Your task to perform on an android device: Open Yahoo.com Image 0: 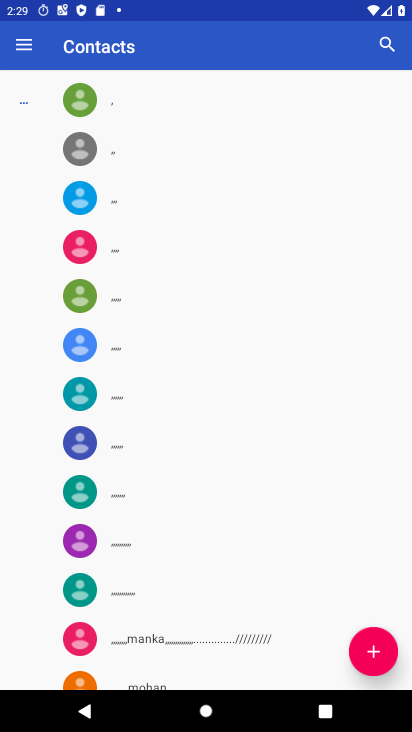
Step 0: press home button
Your task to perform on an android device: Open Yahoo.com Image 1: 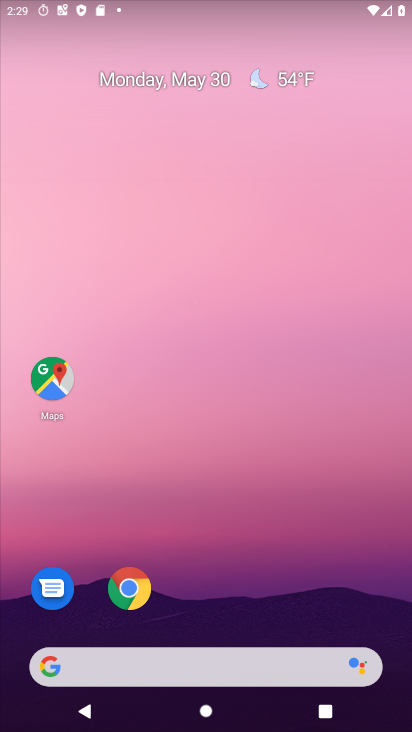
Step 1: drag from (191, 593) to (192, 109)
Your task to perform on an android device: Open Yahoo.com Image 2: 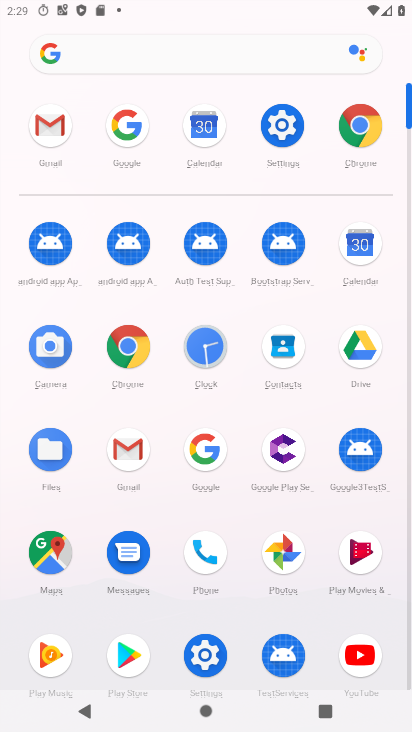
Step 2: click (131, 343)
Your task to perform on an android device: Open Yahoo.com Image 3: 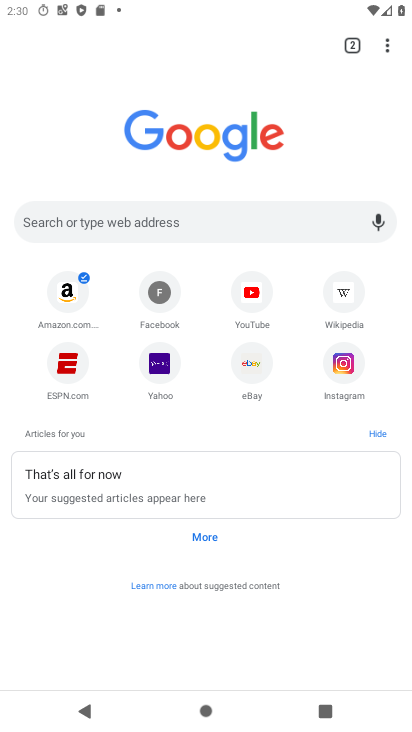
Step 3: click (159, 361)
Your task to perform on an android device: Open Yahoo.com Image 4: 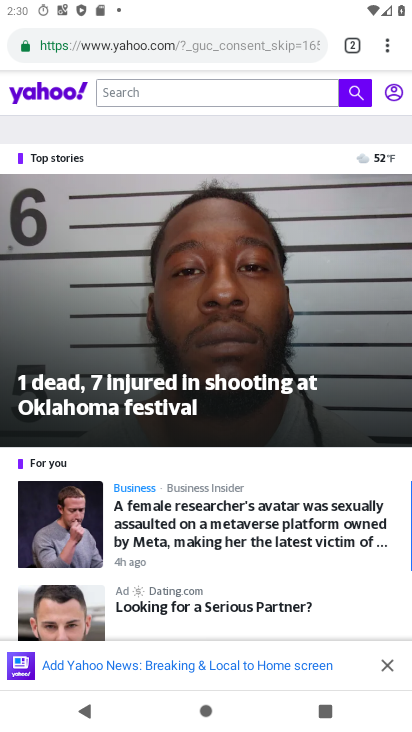
Step 4: task complete